Your task to perform on an android device: What's on my calendar tomorrow? Image 0: 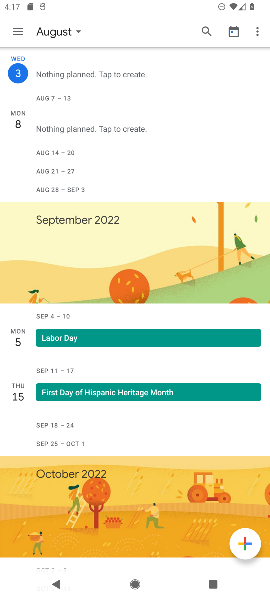
Step 0: press home button
Your task to perform on an android device: What's on my calendar tomorrow? Image 1: 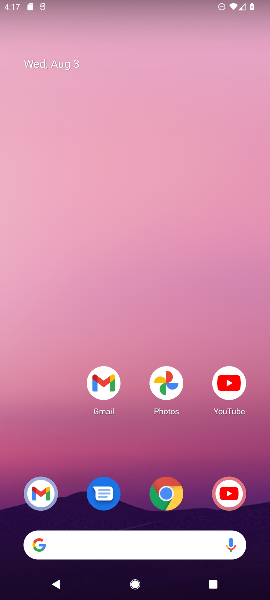
Step 1: drag from (64, 442) to (56, 102)
Your task to perform on an android device: What's on my calendar tomorrow? Image 2: 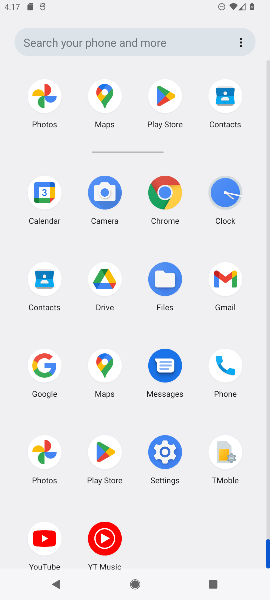
Step 2: click (48, 198)
Your task to perform on an android device: What's on my calendar tomorrow? Image 3: 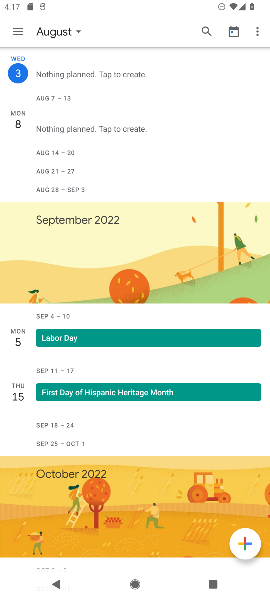
Step 3: click (78, 30)
Your task to perform on an android device: What's on my calendar tomorrow? Image 4: 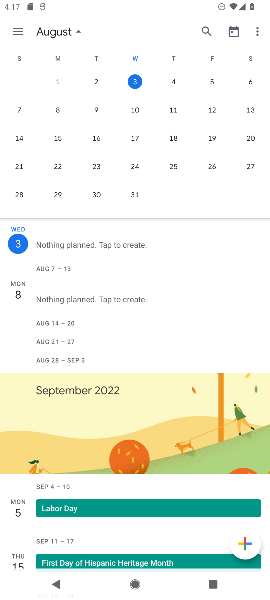
Step 4: click (176, 82)
Your task to perform on an android device: What's on my calendar tomorrow? Image 5: 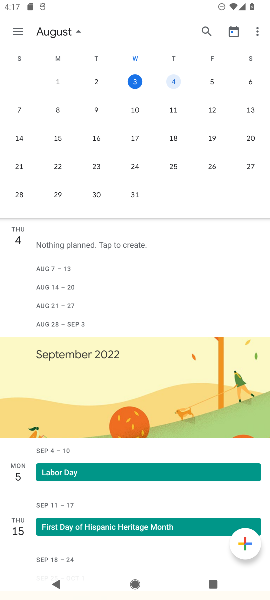
Step 5: task complete